Your task to perform on an android device: What's on my calendar tomorrow? Image 0: 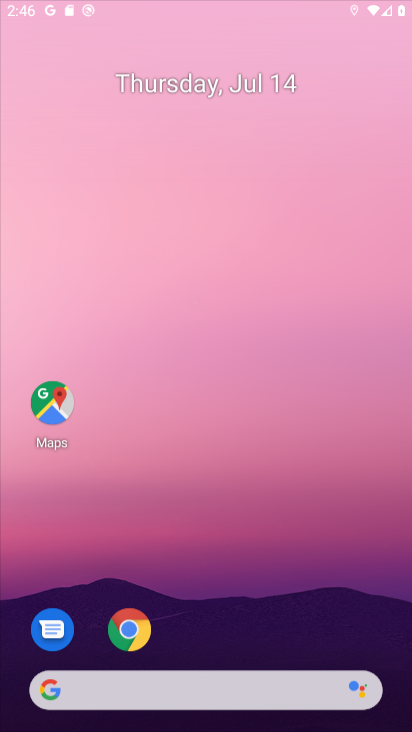
Step 0: press back button
Your task to perform on an android device: What's on my calendar tomorrow? Image 1: 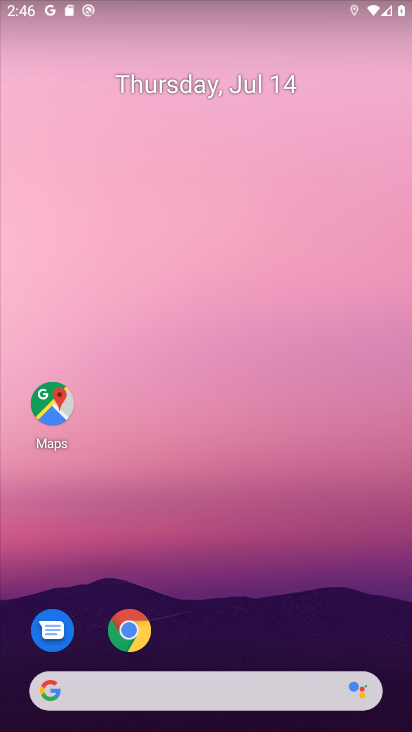
Step 1: drag from (258, 610) to (134, 134)
Your task to perform on an android device: What's on my calendar tomorrow? Image 2: 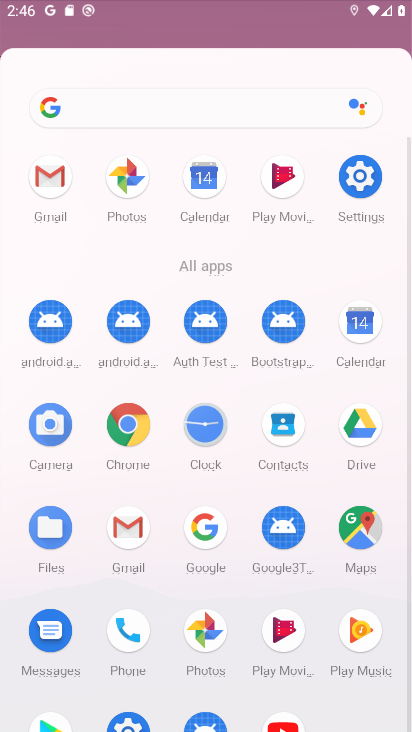
Step 2: drag from (255, 623) to (242, 263)
Your task to perform on an android device: What's on my calendar tomorrow? Image 3: 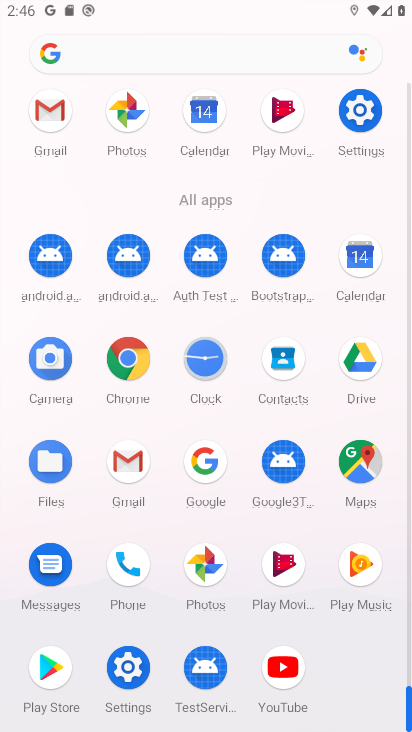
Step 3: click (352, 261)
Your task to perform on an android device: What's on my calendar tomorrow? Image 4: 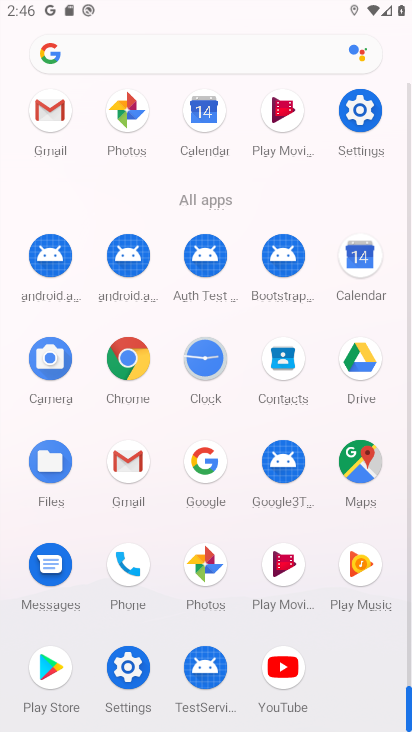
Step 4: click (352, 261)
Your task to perform on an android device: What's on my calendar tomorrow? Image 5: 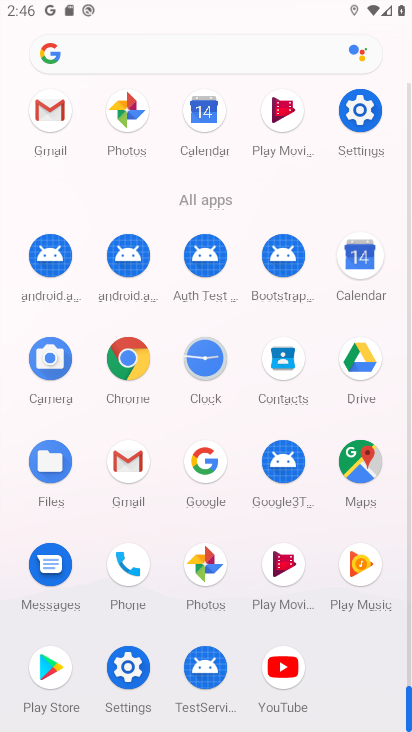
Step 5: click (352, 261)
Your task to perform on an android device: What's on my calendar tomorrow? Image 6: 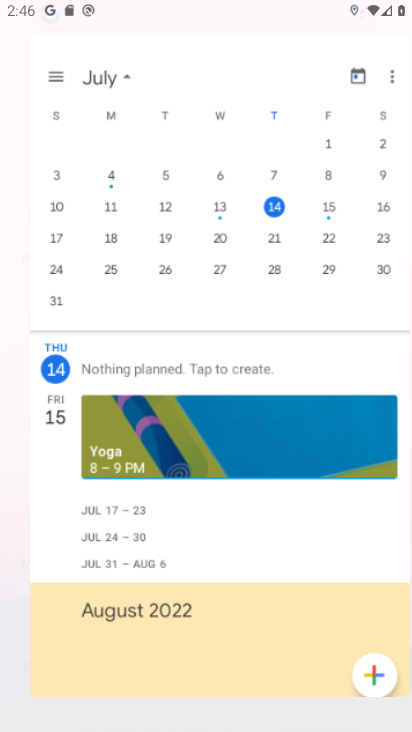
Step 6: click (354, 261)
Your task to perform on an android device: What's on my calendar tomorrow? Image 7: 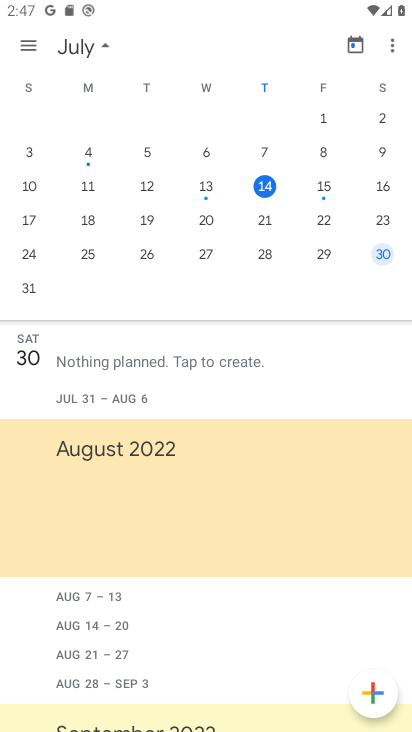
Step 7: click (334, 184)
Your task to perform on an android device: What's on my calendar tomorrow? Image 8: 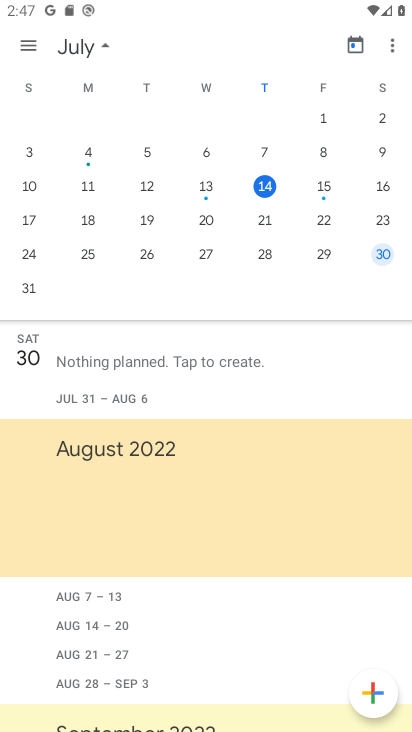
Step 8: click (330, 182)
Your task to perform on an android device: What's on my calendar tomorrow? Image 9: 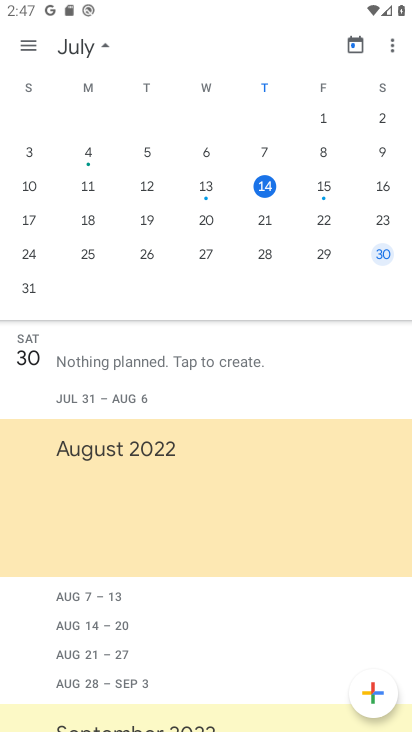
Step 9: click (331, 183)
Your task to perform on an android device: What's on my calendar tomorrow? Image 10: 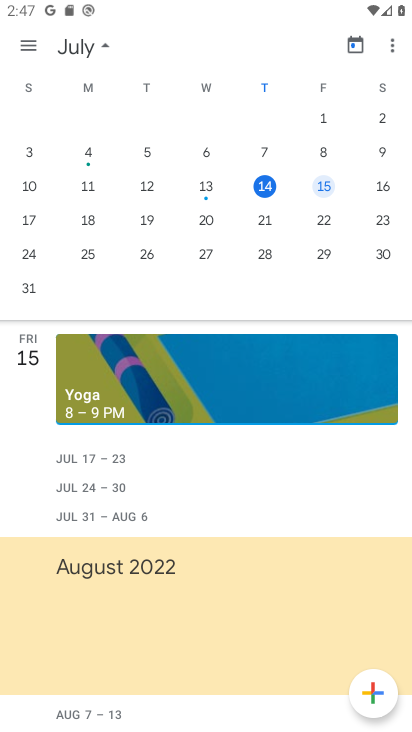
Step 10: click (315, 191)
Your task to perform on an android device: What's on my calendar tomorrow? Image 11: 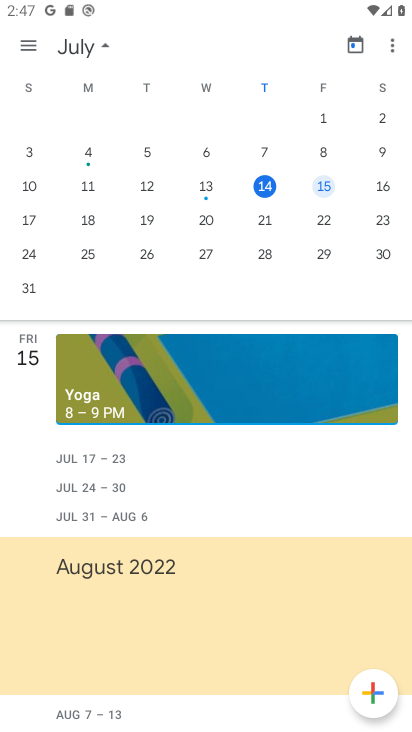
Step 11: click (315, 191)
Your task to perform on an android device: What's on my calendar tomorrow? Image 12: 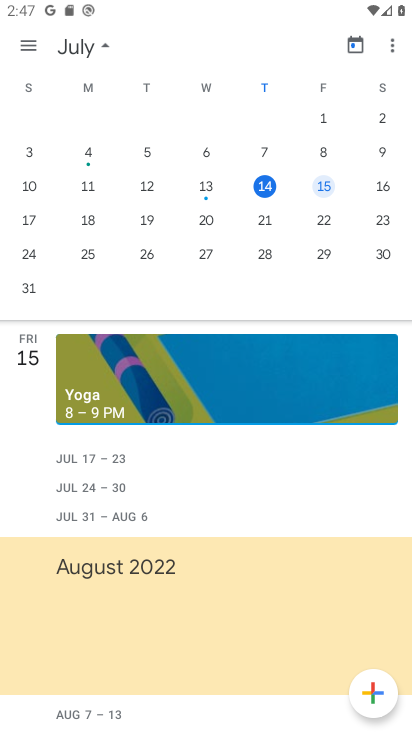
Step 12: task complete